Your task to perform on an android device: Go to Reddit.com Image 0: 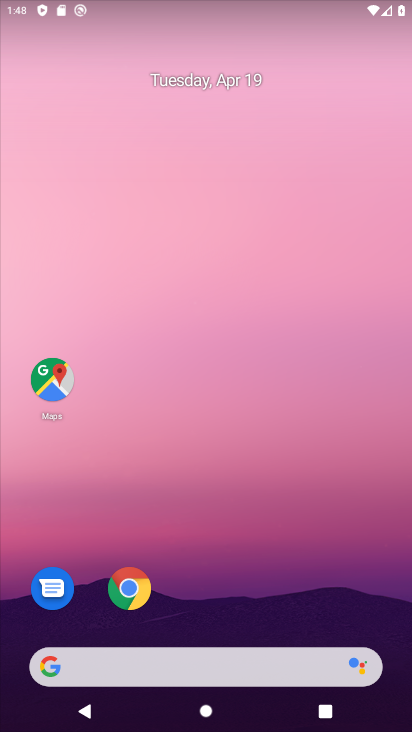
Step 0: click (142, 591)
Your task to perform on an android device: Go to Reddit.com Image 1: 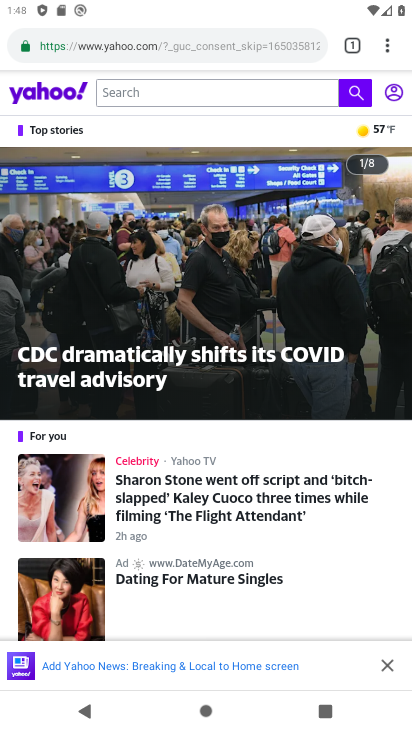
Step 1: click (177, 35)
Your task to perform on an android device: Go to Reddit.com Image 2: 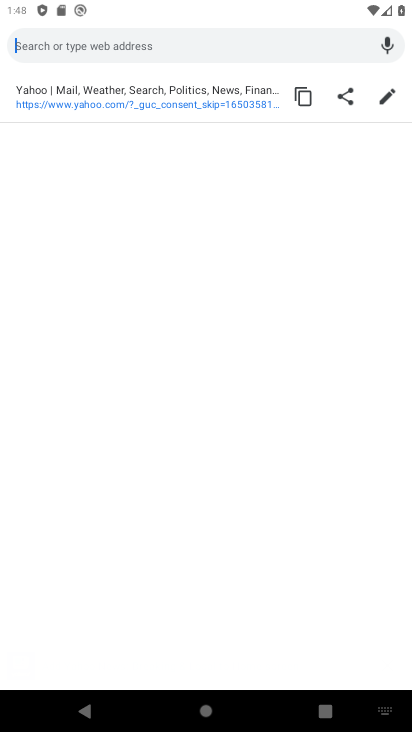
Step 2: type "Reddit.com"
Your task to perform on an android device: Go to Reddit.com Image 3: 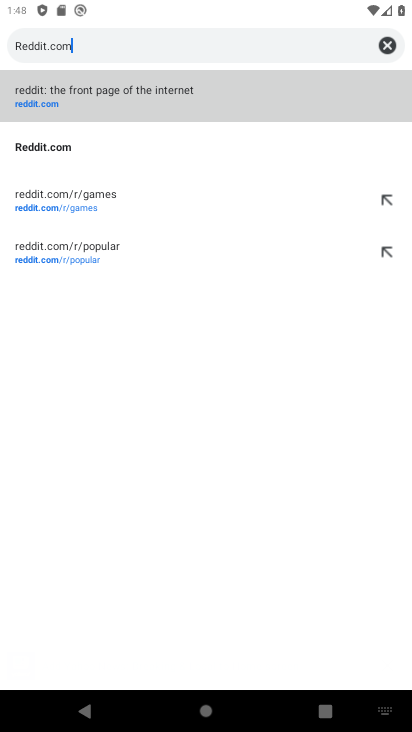
Step 3: click (80, 143)
Your task to perform on an android device: Go to Reddit.com Image 4: 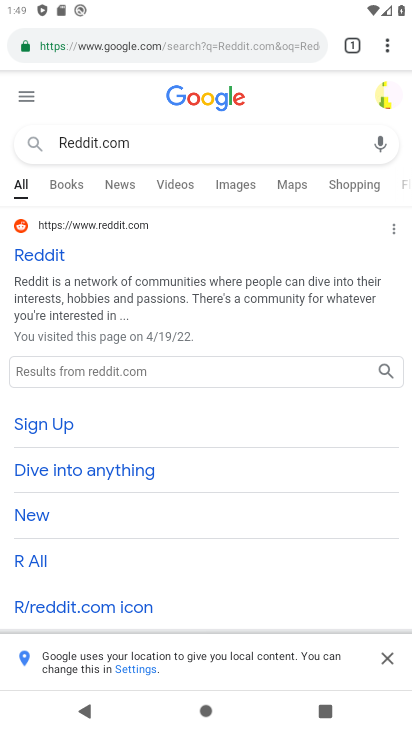
Step 4: click (62, 263)
Your task to perform on an android device: Go to Reddit.com Image 5: 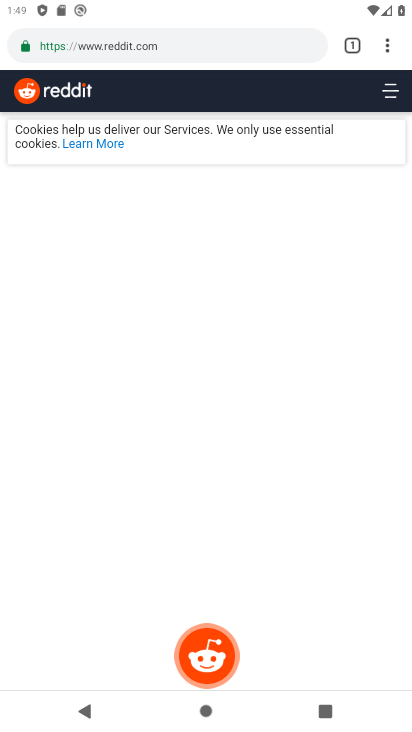
Step 5: task complete